Your task to perform on an android device: Go to Reddit.com Image 0: 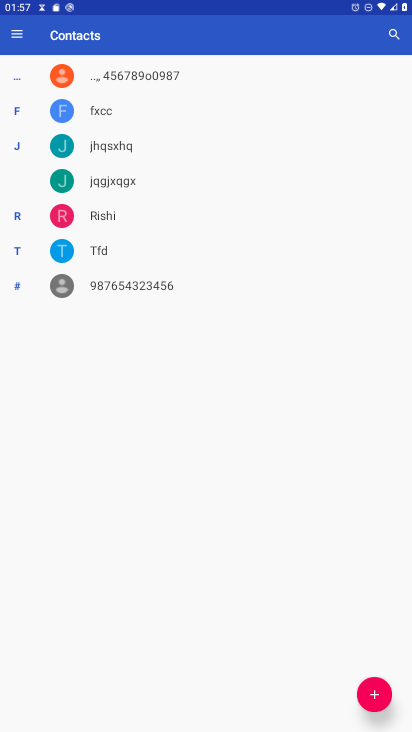
Step 0: press home button
Your task to perform on an android device: Go to Reddit.com Image 1: 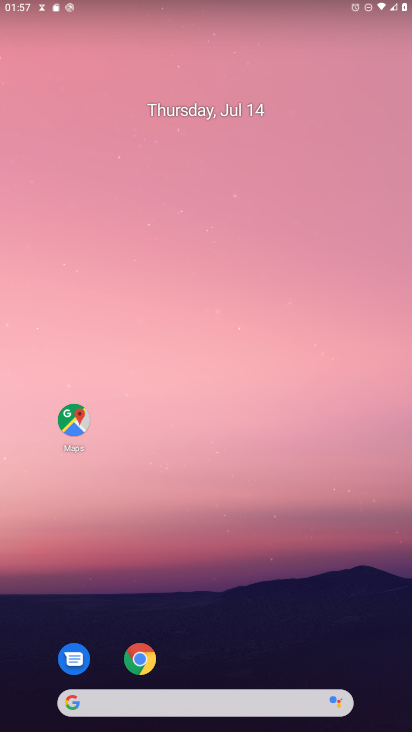
Step 1: click (104, 698)
Your task to perform on an android device: Go to Reddit.com Image 2: 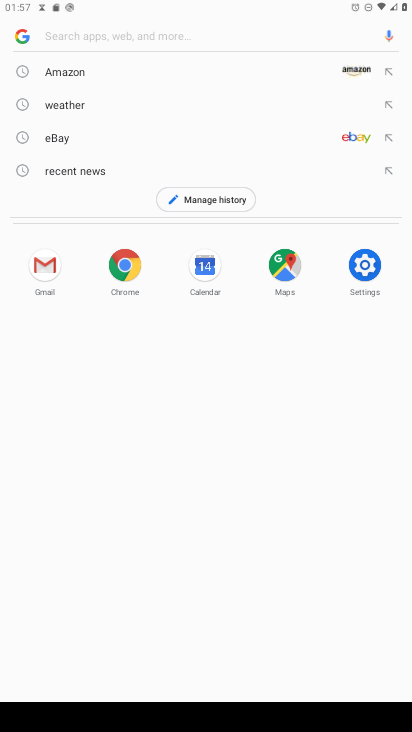
Step 2: click (63, 34)
Your task to perform on an android device: Go to Reddit.com Image 3: 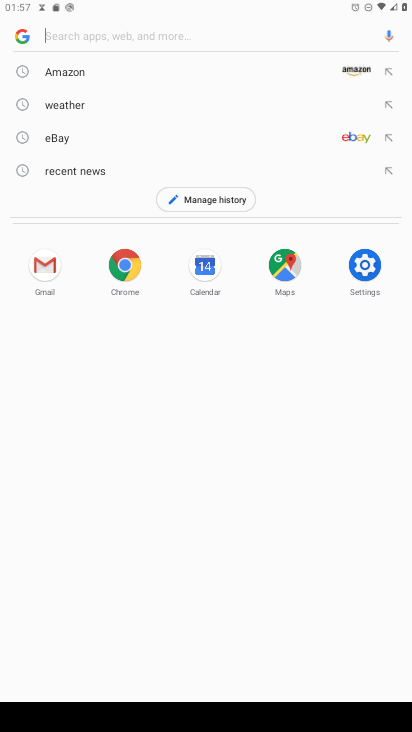
Step 3: type " Reddit.com"
Your task to perform on an android device: Go to Reddit.com Image 4: 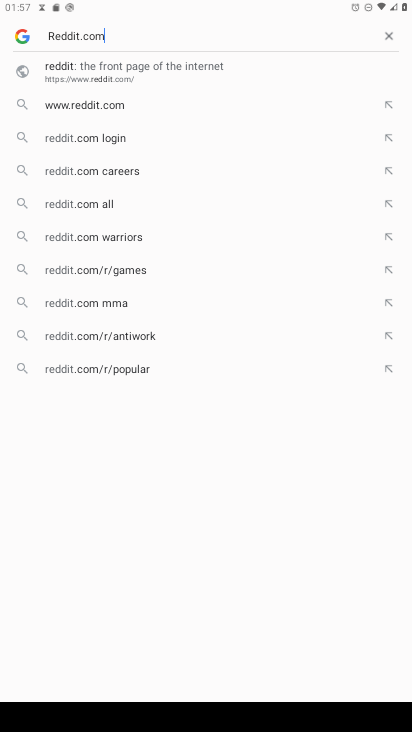
Step 4: type ""
Your task to perform on an android device: Go to Reddit.com Image 5: 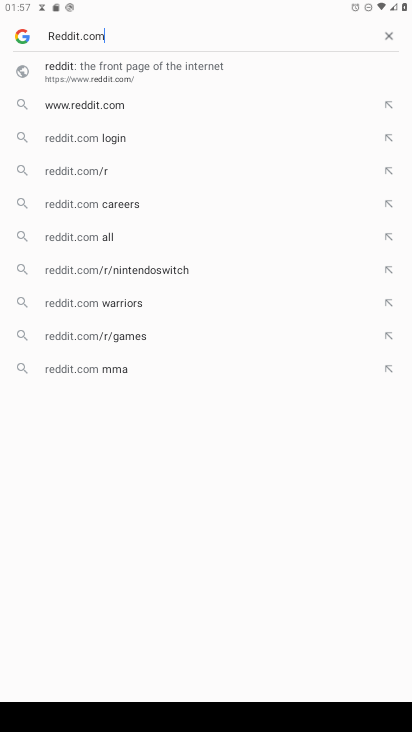
Step 5: type ""
Your task to perform on an android device: Go to Reddit.com Image 6: 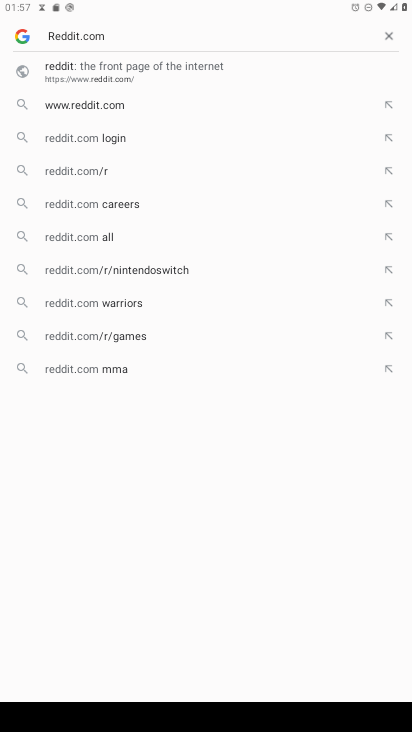
Step 6: type ""
Your task to perform on an android device: Go to Reddit.com Image 7: 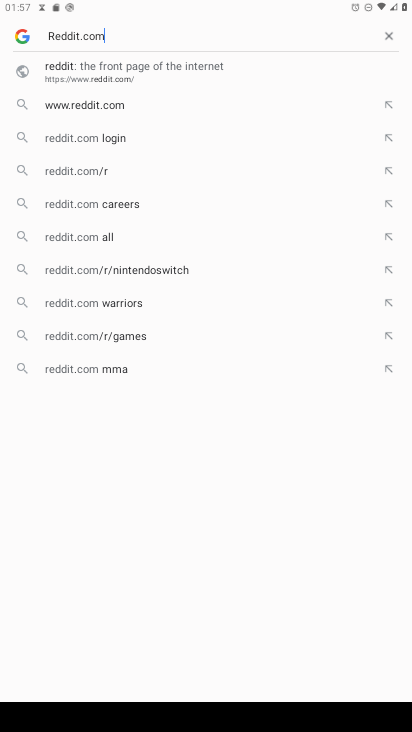
Step 7: click (79, 113)
Your task to perform on an android device: Go to Reddit.com Image 8: 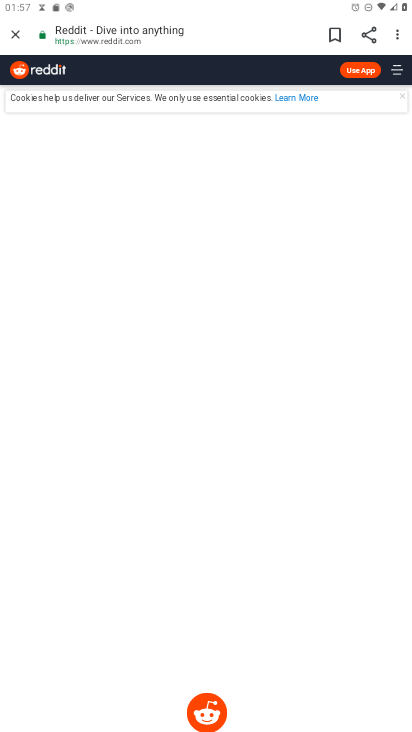
Step 8: task complete